Your task to perform on an android device: manage bookmarks in the chrome app Image 0: 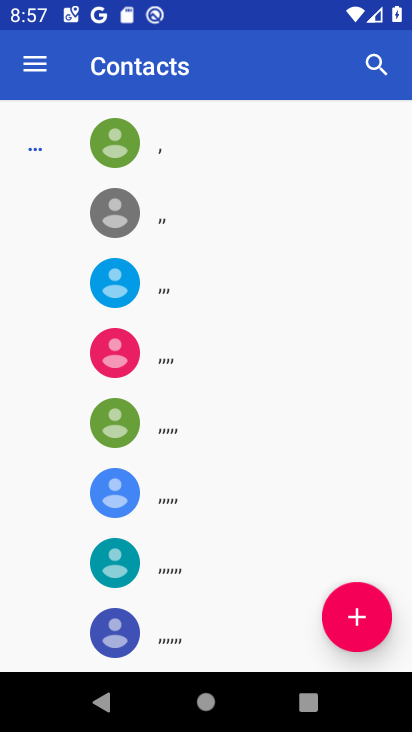
Step 0: press home button
Your task to perform on an android device: manage bookmarks in the chrome app Image 1: 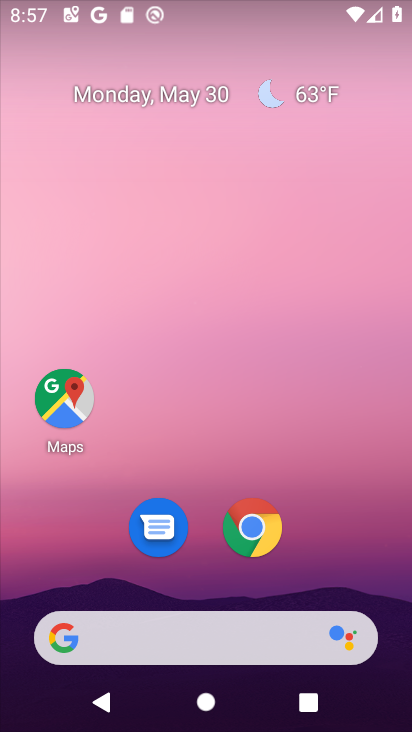
Step 1: click (261, 523)
Your task to perform on an android device: manage bookmarks in the chrome app Image 2: 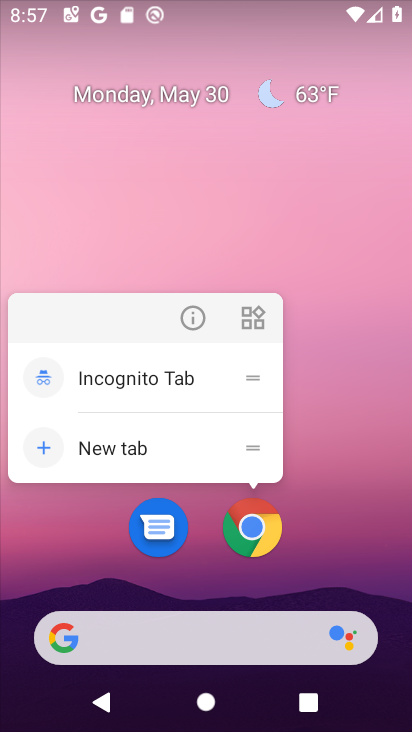
Step 2: click (264, 515)
Your task to perform on an android device: manage bookmarks in the chrome app Image 3: 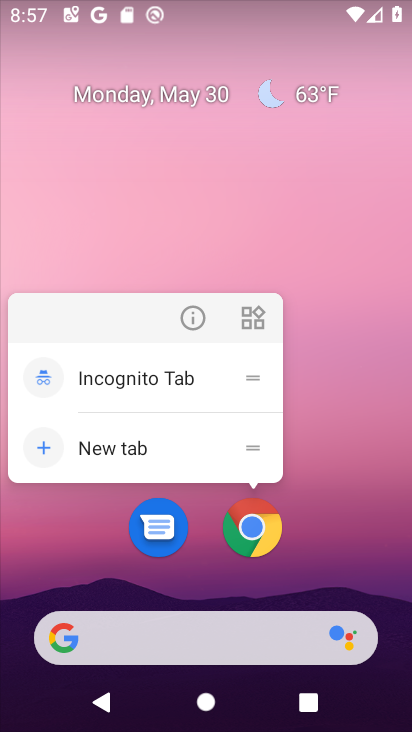
Step 3: click (249, 519)
Your task to perform on an android device: manage bookmarks in the chrome app Image 4: 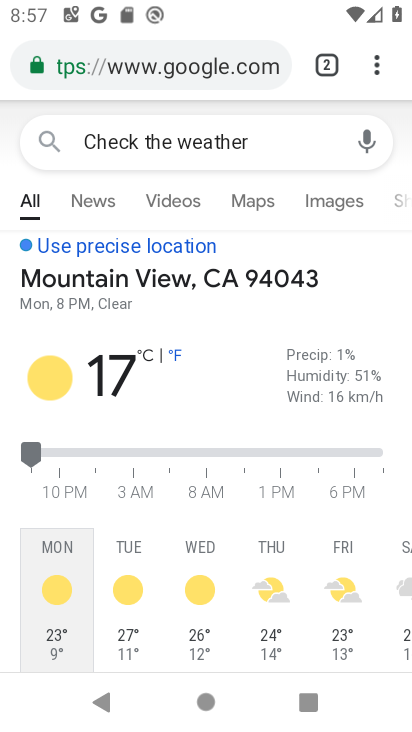
Step 4: click (377, 59)
Your task to perform on an android device: manage bookmarks in the chrome app Image 5: 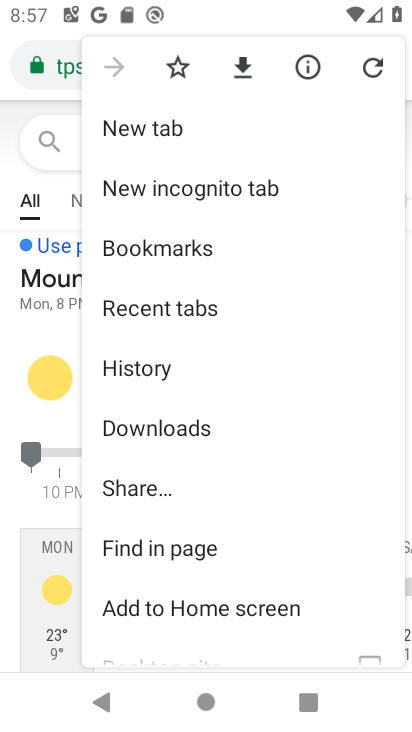
Step 5: click (182, 251)
Your task to perform on an android device: manage bookmarks in the chrome app Image 6: 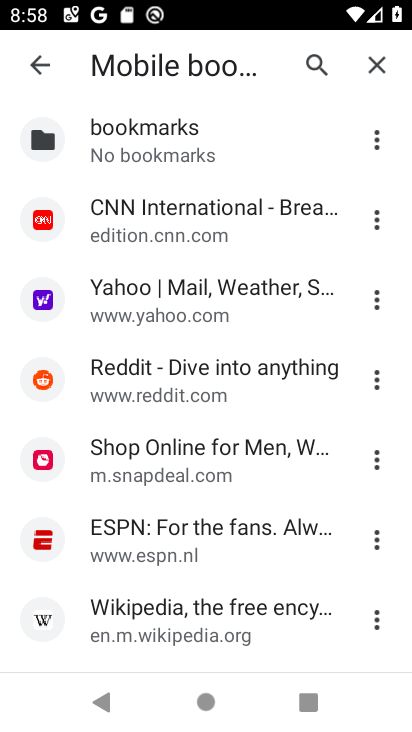
Step 6: click (150, 223)
Your task to perform on an android device: manage bookmarks in the chrome app Image 7: 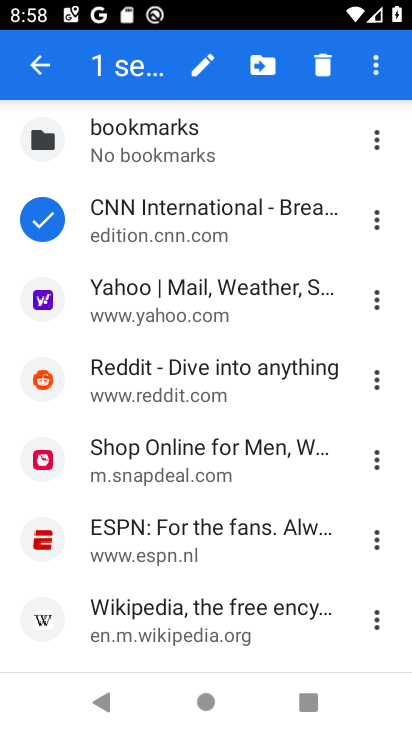
Step 7: click (261, 71)
Your task to perform on an android device: manage bookmarks in the chrome app Image 8: 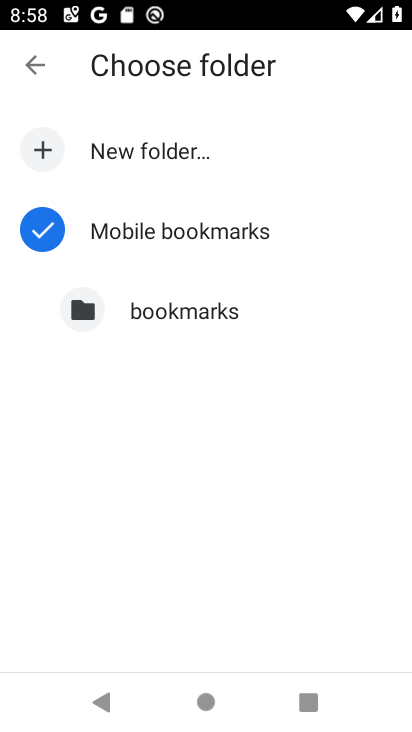
Step 8: click (209, 292)
Your task to perform on an android device: manage bookmarks in the chrome app Image 9: 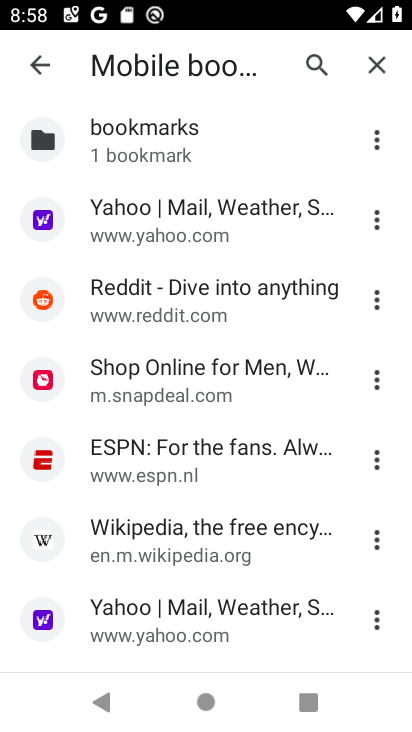
Step 9: task complete